Your task to perform on an android device: turn off improve location accuracy Image 0: 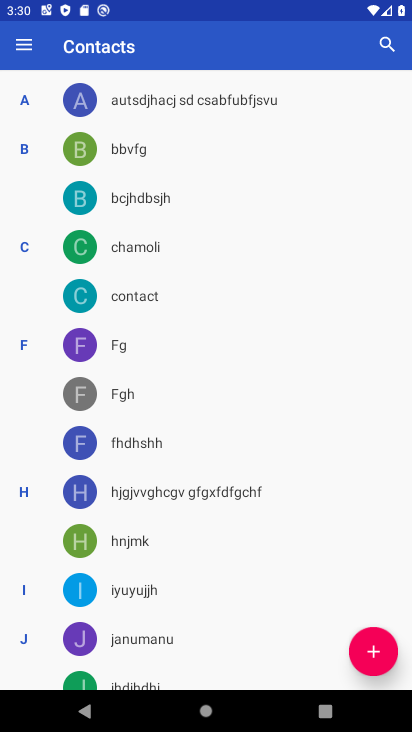
Step 0: press home button
Your task to perform on an android device: turn off improve location accuracy Image 1: 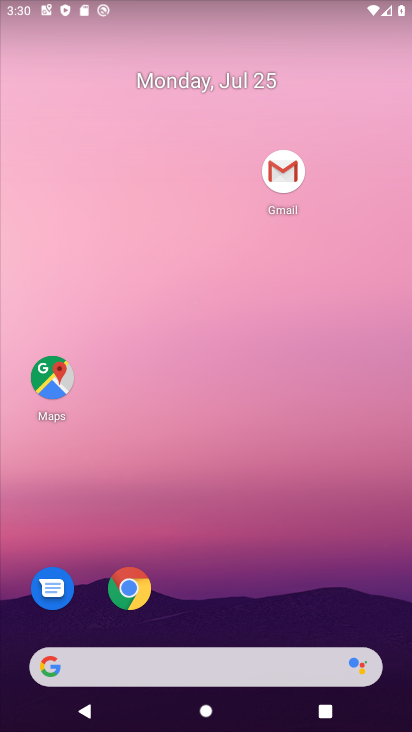
Step 1: drag from (328, 246) to (334, 28)
Your task to perform on an android device: turn off improve location accuracy Image 2: 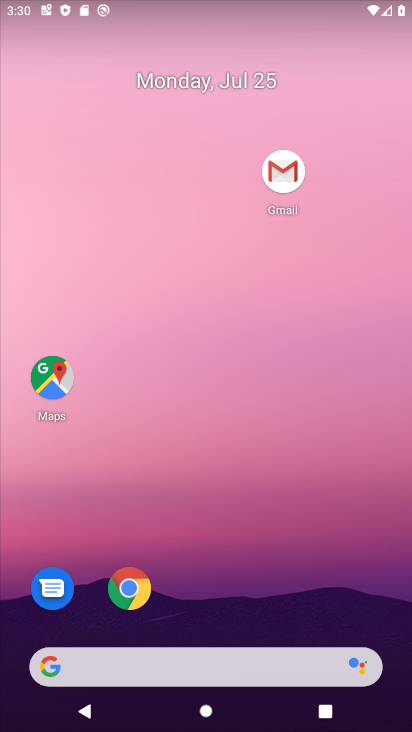
Step 2: drag from (297, 553) to (319, 44)
Your task to perform on an android device: turn off improve location accuracy Image 3: 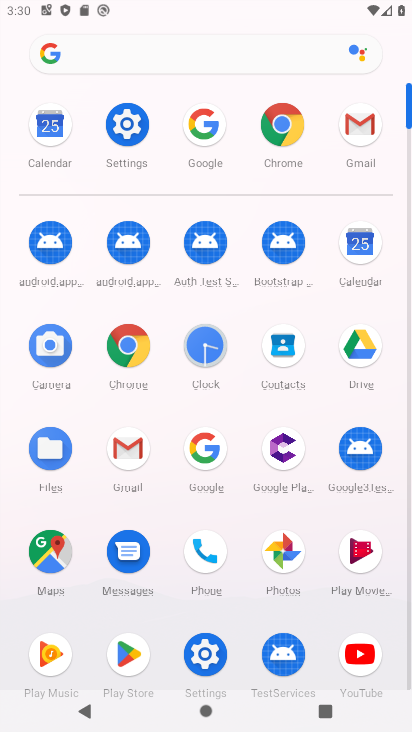
Step 3: click (126, 123)
Your task to perform on an android device: turn off improve location accuracy Image 4: 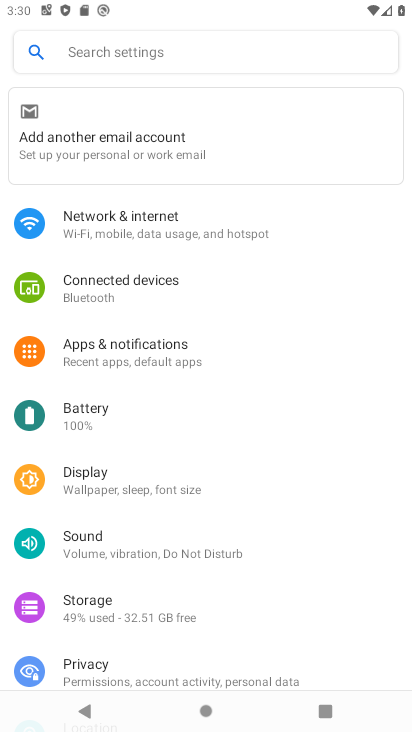
Step 4: drag from (300, 596) to (299, 209)
Your task to perform on an android device: turn off improve location accuracy Image 5: 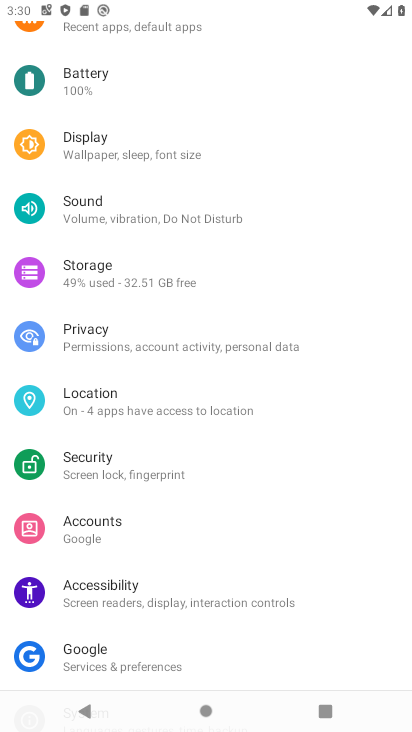
Step 5: click (166, 407)
Your task to perform on an android device: turn off improve location accuracy Image 6: 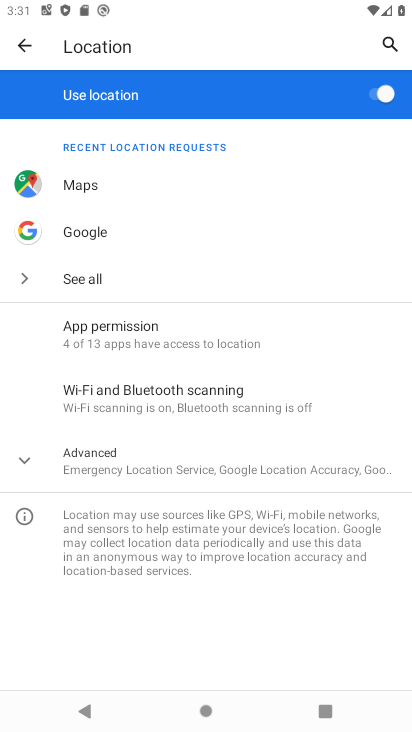
Step 6: click (109, 452)
Your task to perform on an android device: turn off improve location accuracy Image 7: 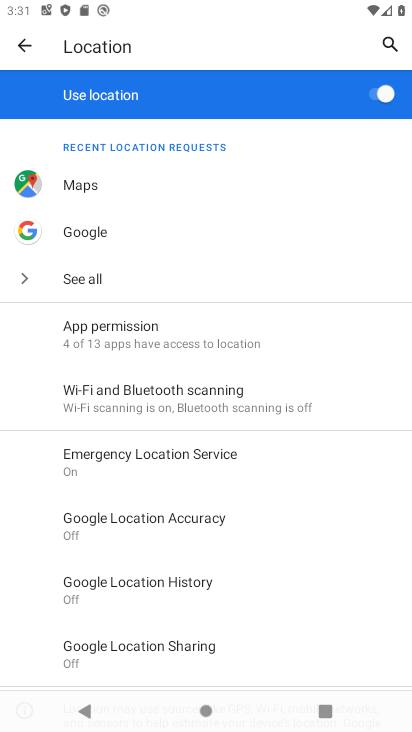
Step 7: click (210, 529)
Your task to perform on an android device: turn off improve location accuracy Image 8: 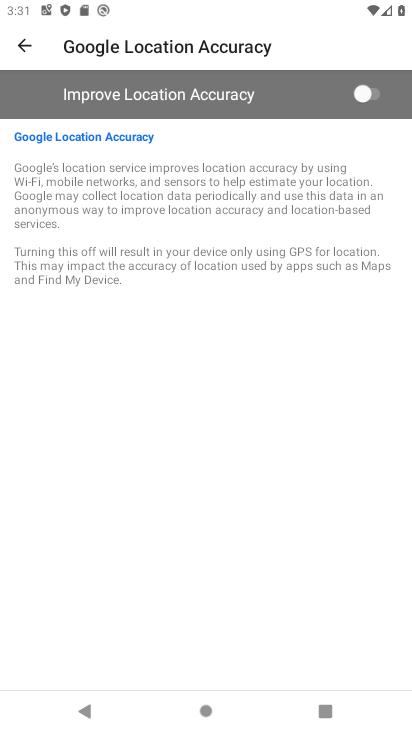
Step 8: task complete